Your task to perform on an android device: Open Android settings Image 0: 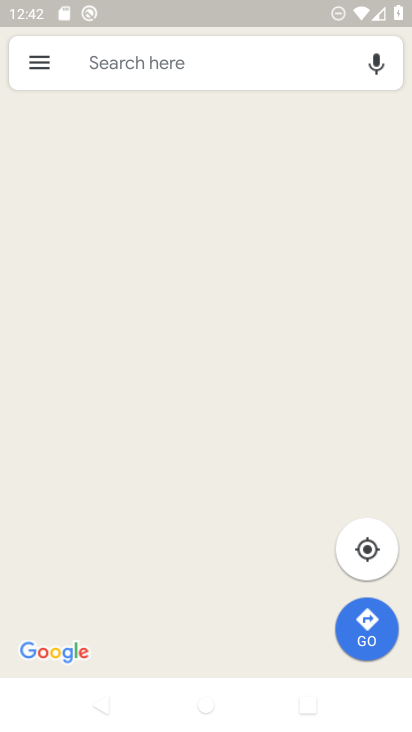
Step 0: click (260, 523)
Your task to perform on an android device: Open Android settings Image 1: 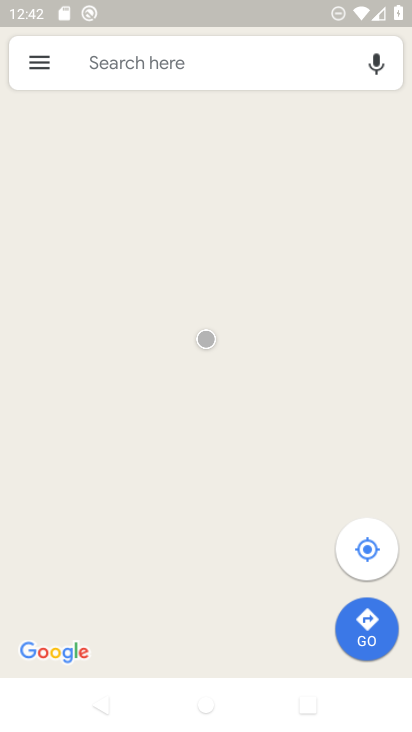
Step 1: press back button
Your task to perform on an android device: Open Android settings Image 2: 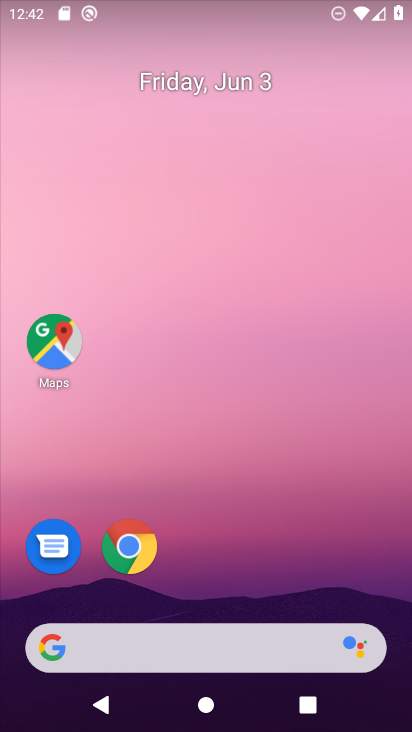
Step 2: drag from (272, 548) to (147, 115)
Your task to perform on an android device: Open Android settings Image 3: 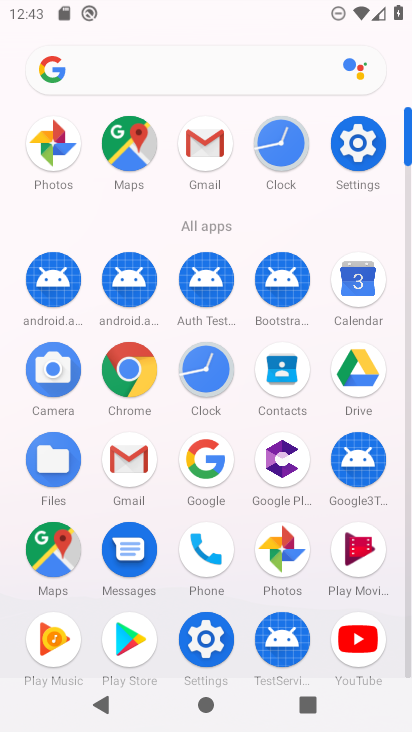
Step 3: click (360, 144)
Your task to perform on an android device: Open Android settings Image 4: 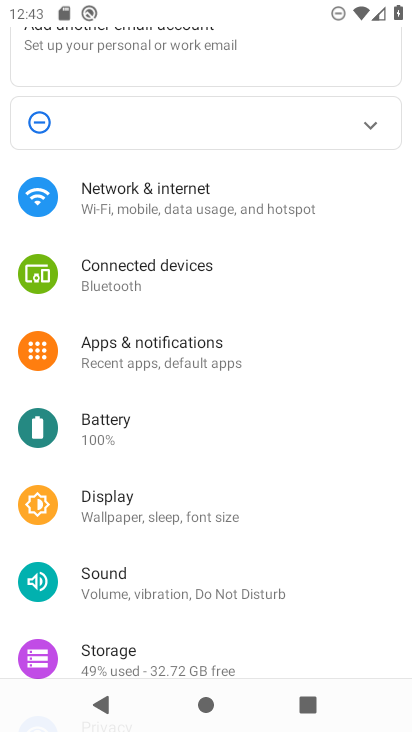
Step 4: task complete